Your task to perform on an android device: open app "NewsBreak: Local News & Alerts" (install if not already installed), go to login, and select forgot password Image 0: 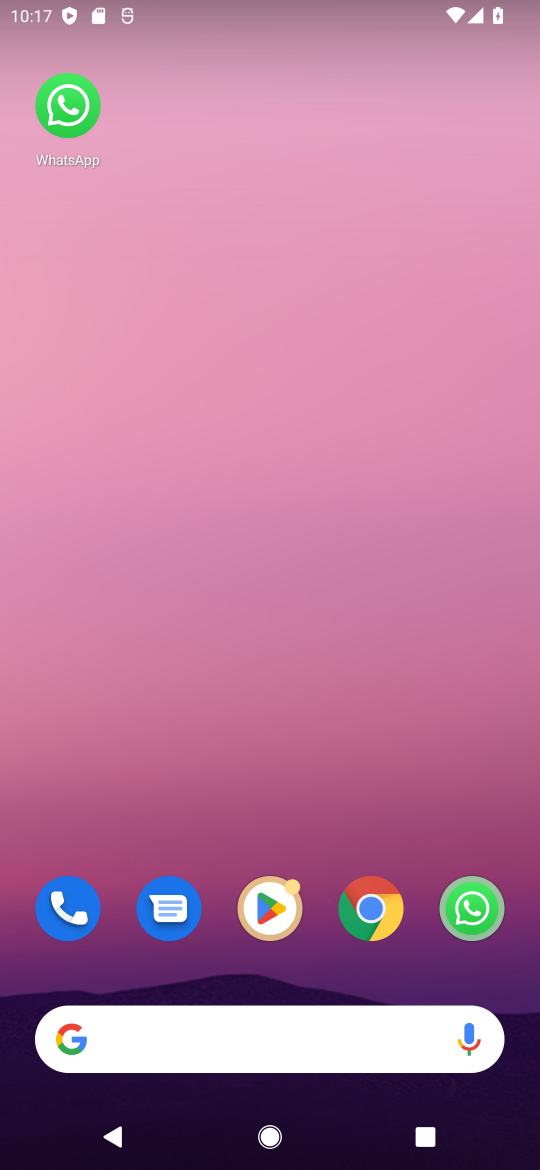
Step 0: click (265, 937)
Your task to perform on an android device: open app "NewsBreak: Local News & Alerts" (install if not already installed), go to login, and select forgot password Image 1: 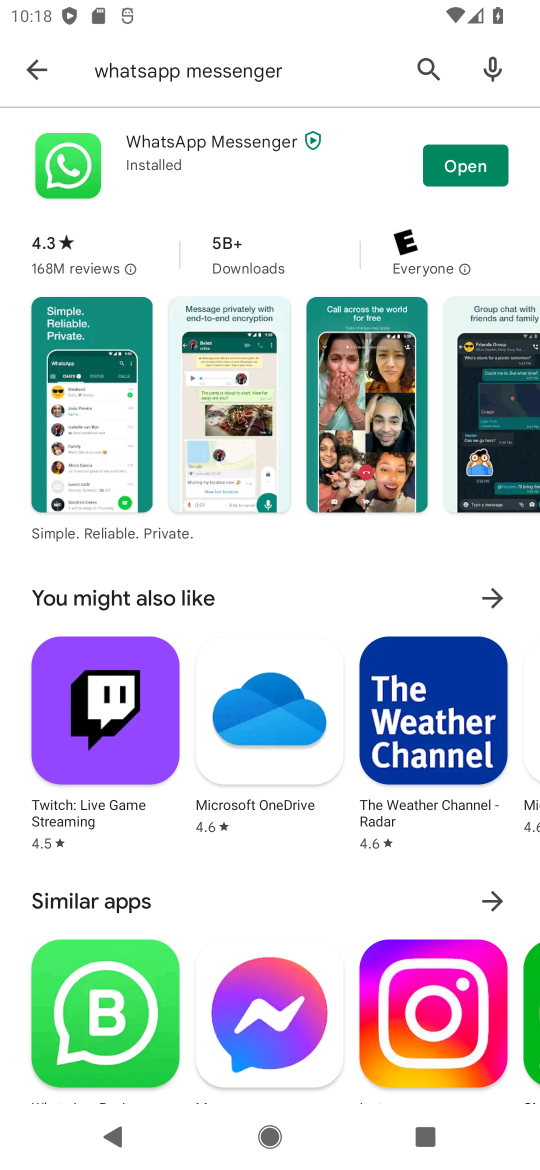
Step 1: click (483, 176)
Your task to perform on an android device: open app "NewsBreak: Local News & Alerts" (install if not already installed), go to login, and select forgot password Image 2: 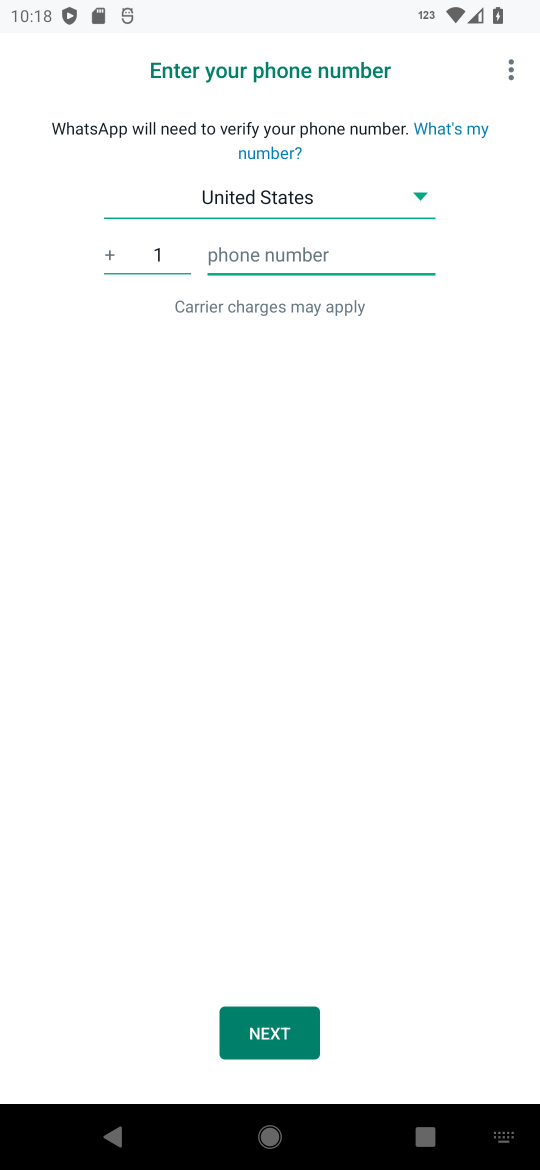
Step 2: task complete